Your task to perform on an android device: toggle improve location accuracy Image 0: 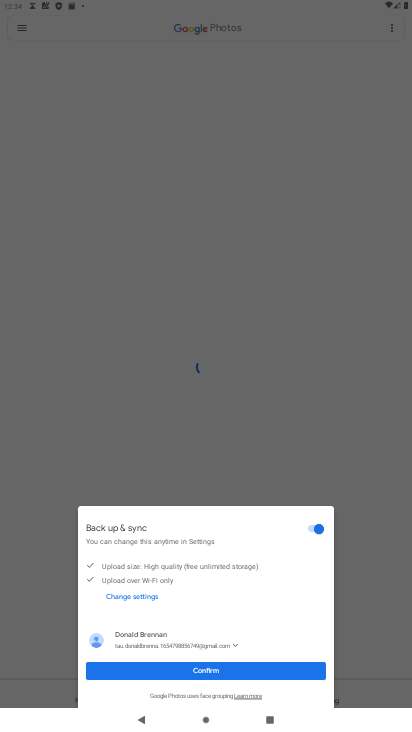
Step 0: press home button
Your task to perform on an android device: toggle improve location accuracy Image 1: 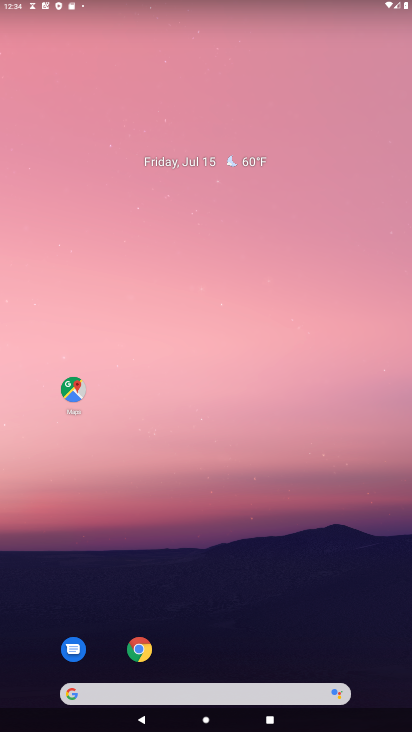
Step 1: drag from (191, 639) to (246, 258)
Your task to perform on an android device: toggle improve location accuracy Image 2: 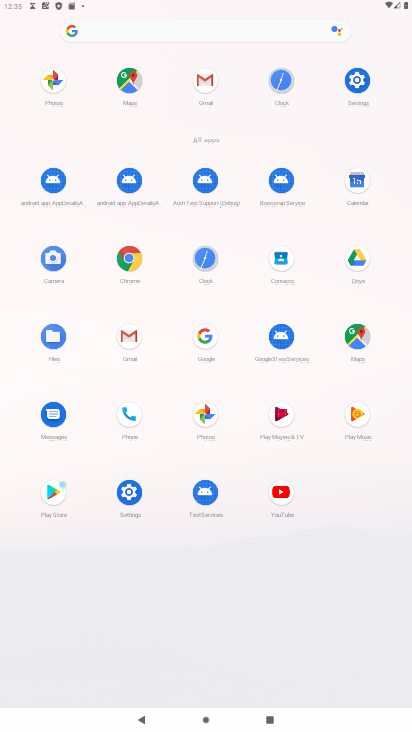
Step 2: click (129, 506)
Your task to perform on an android device: toggle improve location accuracy Image 3: 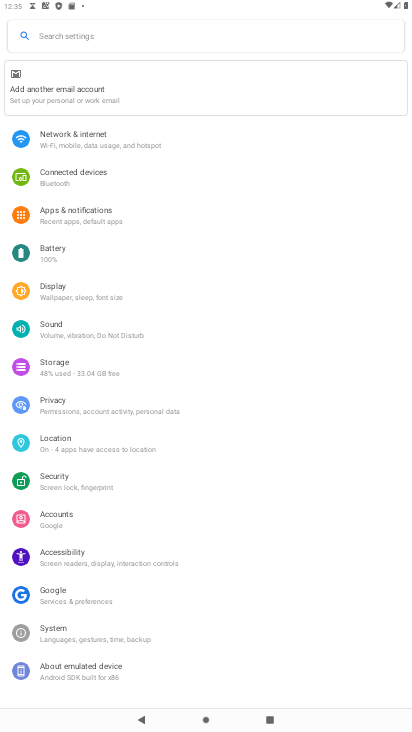
Step 3: click (85, 441)
Your task to perform on an android device: toggle improve location accuracy Image 4: 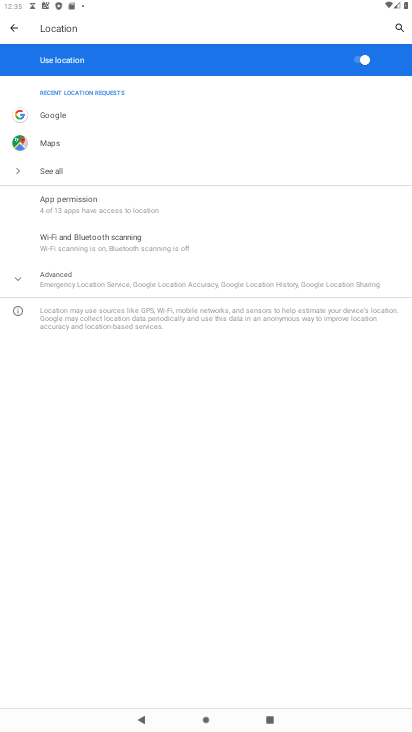
Step 4: click (148, 275)
Your task to perform on an android device: toggle improve location accuracy Image 5: 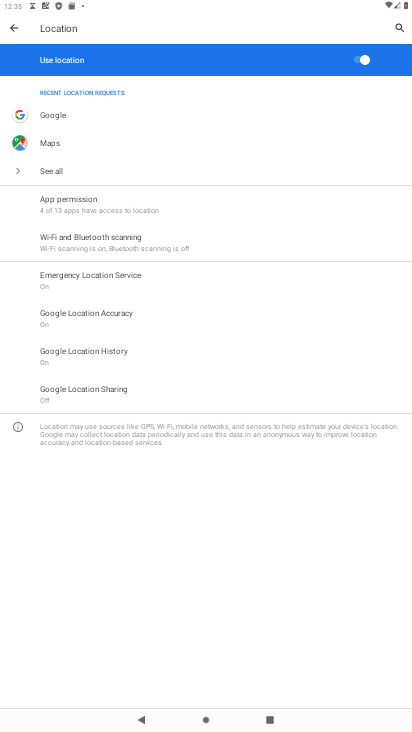
Step 5: click (152, 318)
Your task to perform on an android device: toggle improve location accuracy Image 6: 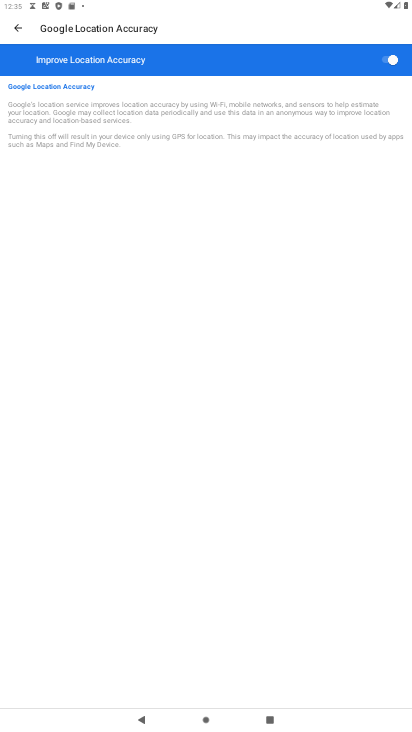
Step 6: click (379, 62)
Your task to perform on an android device: toggle improve location accuracy Image 7: 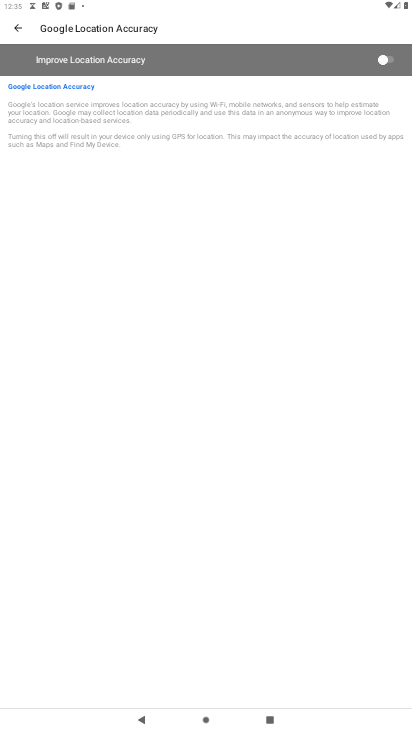
Step 7: task complete